Your task to perform on an android device: Go to sound settings Image 0: 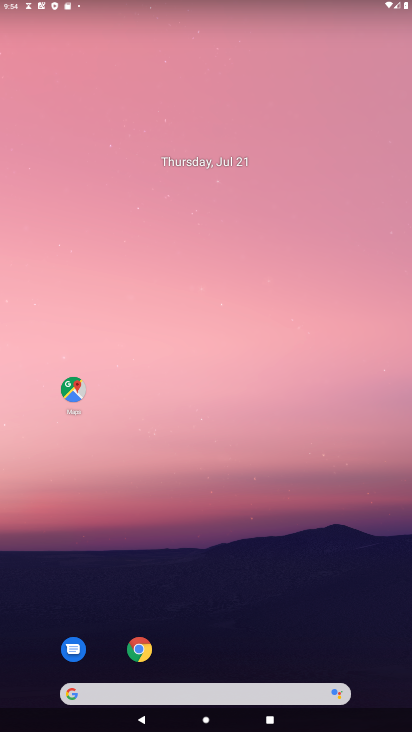
Step 0: drag from (258, 611) to (255, 372)
Your task to perform on an android device: Go to sound settings Image 1: 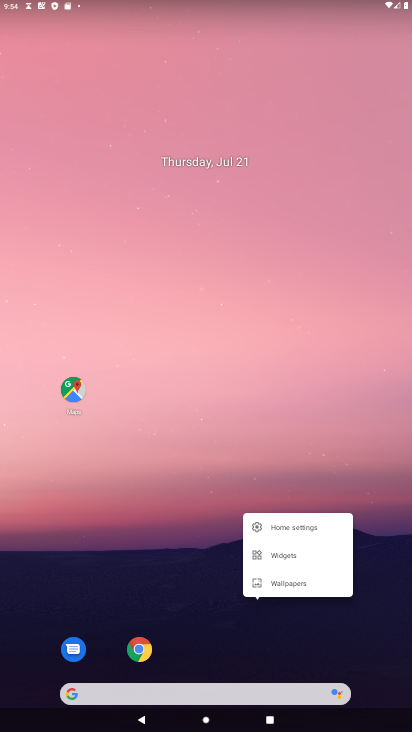
Step 1: click (239, 477)
Your task to perform on an android device: Go to sound settings Image 2: 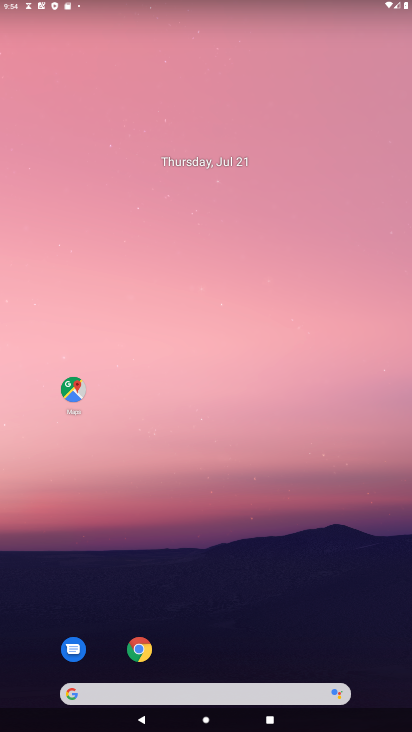
Step 2: drag from (279, 641) to (301, 315)
Your task to perform on an android device: Go to sound settings Image 3: 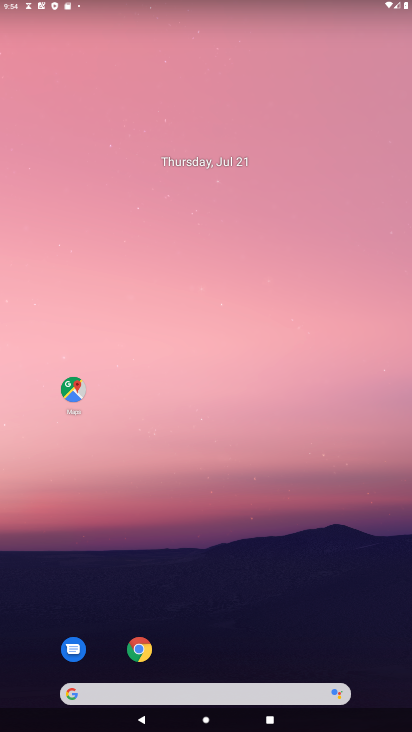
Step 3: drag from (306, 585) to (311, 229)
Your task to perform on an android device: Go to sound settings Image 4: 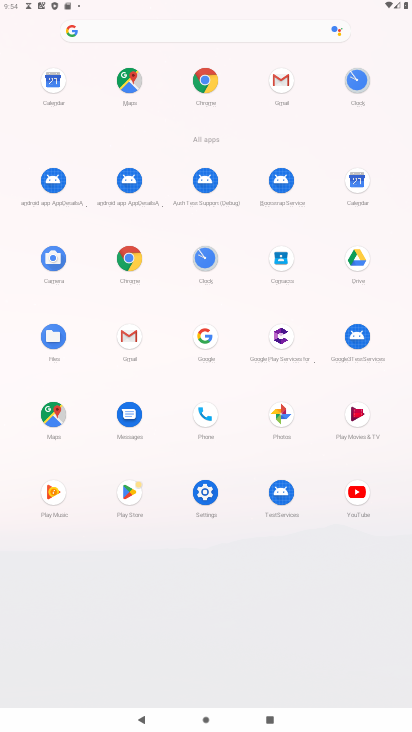
Step 4: click (204, 498)
Your task to perform on an android device: Go to sound settings Image 5: 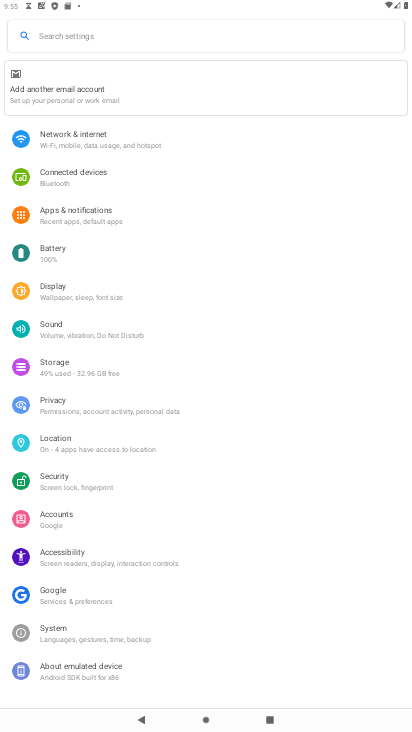
Step 5: click (80, 329)
Your task to perform on an android device: Go to sound settings Image 6: 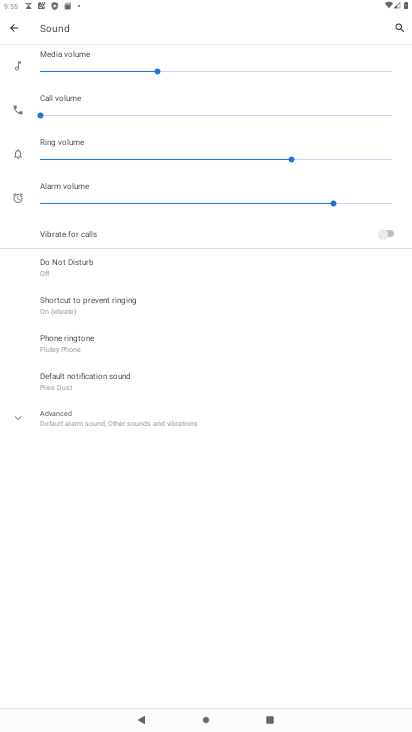
Step 6: task complete